Your task to perform on an android device: Open privacy settings Image 0: 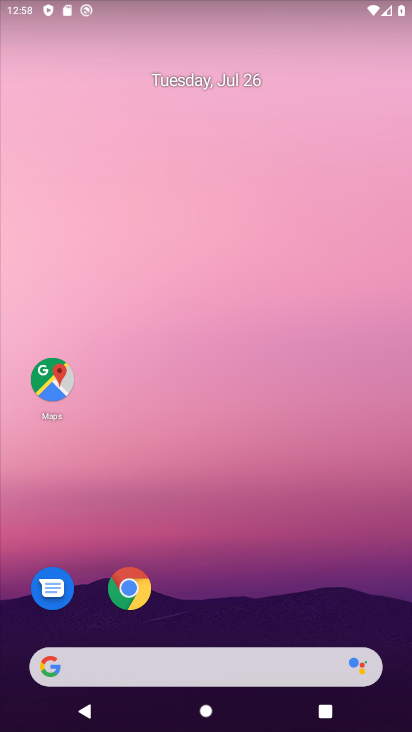
Step 0: drag from (339, 599) to (323, 452)
Your task to perform on an android device: Open privacy settings Image 1: 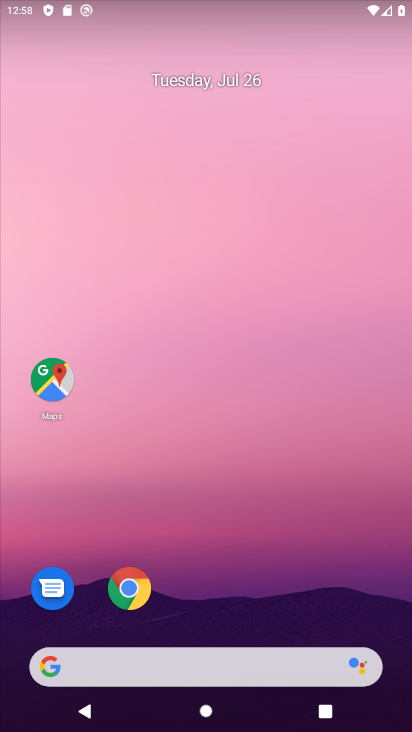
Step 1: drag from (366, 602) to (296, 254)
Your task to perform on an android device: Open privacy settings Image 2: 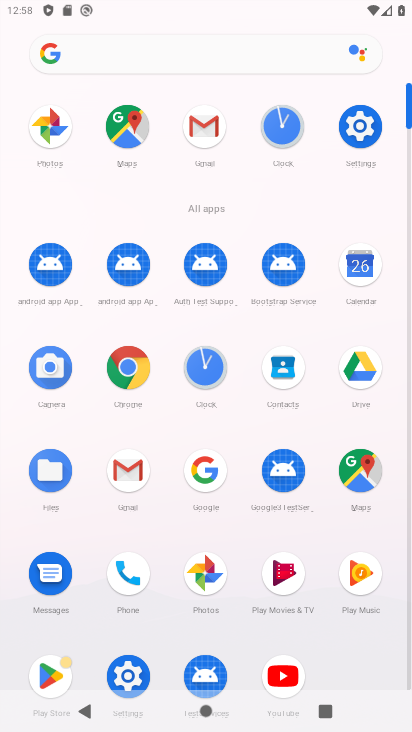
Step 2: click (111, 667)
Your task to perform on an android device: Open privacy settings Image 3: 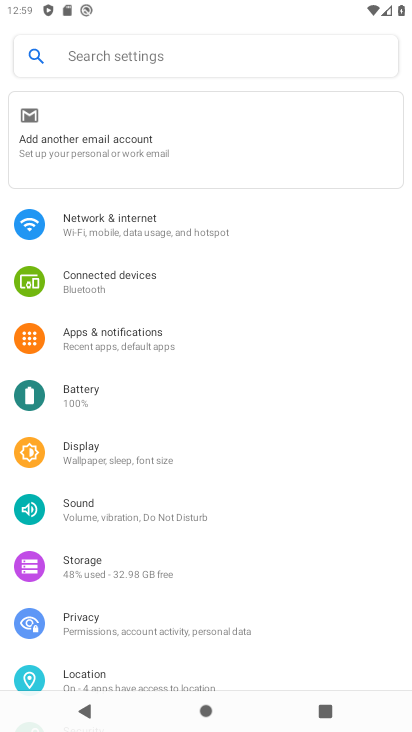
Step 3: click (83, 613)
Your task to perform on an android device: Open privacy settings Image 4: 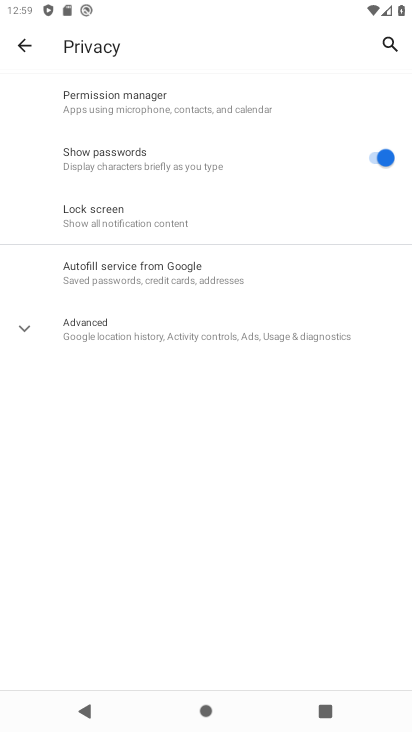
Step 4: task complete